Your task to perform on an android device: Go to location settings Image 0: 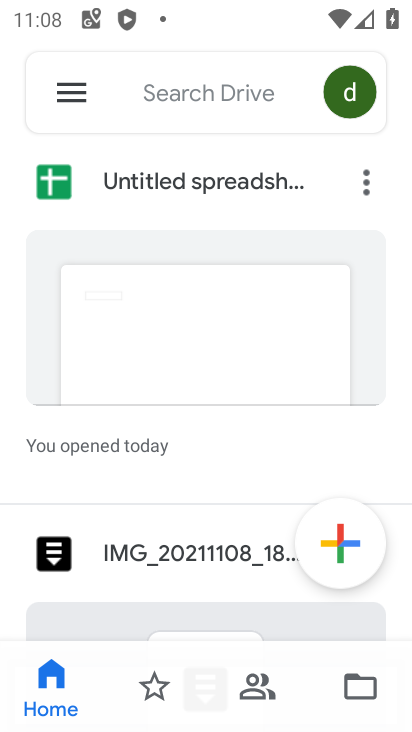
Step 0: press home button
Your task to perform on an android device: Go to location settings Image 1: 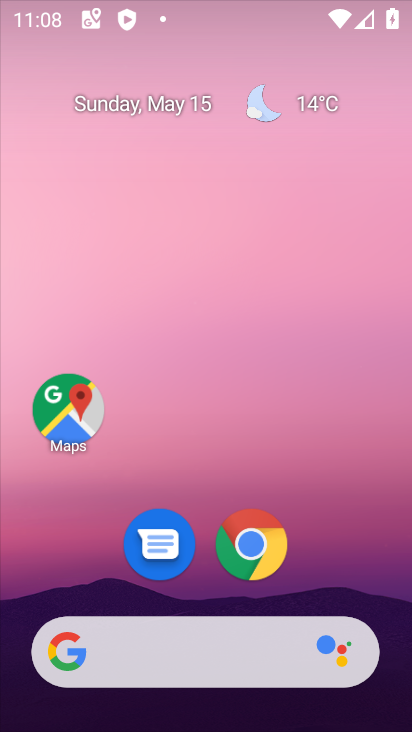
Step 1: drag from (123, 632) to (276, 170)
Your task to perform on an android device: Go to location settings Image 2: 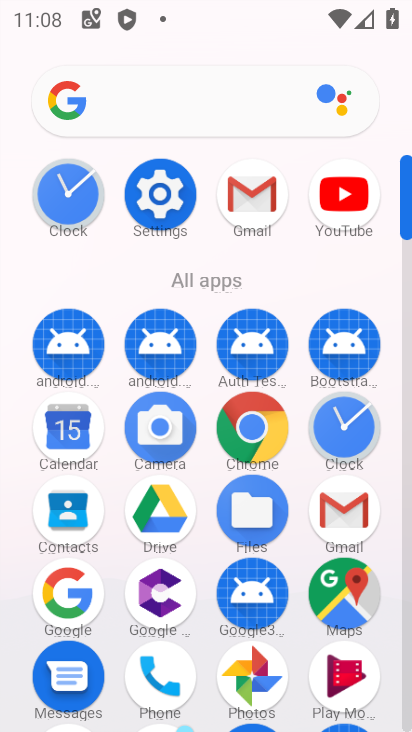
Step 2: drag from (179, 633) to (240, 408)
Your task to perform on an android device: Go to location settings Image 3: 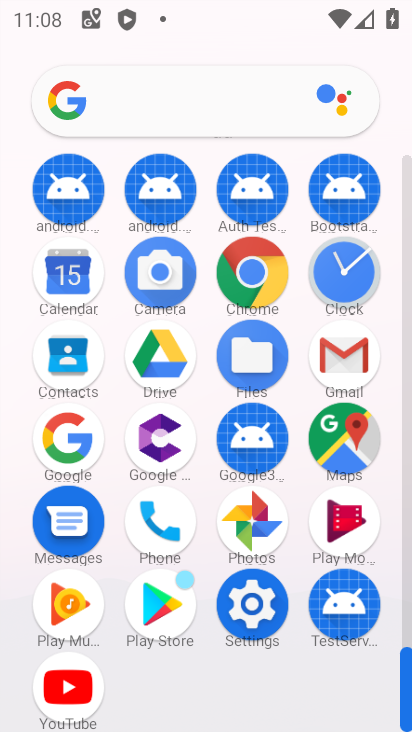
Step 3: click (249, 595)
Your task to perform on an android device: Go to location settings Image 4: 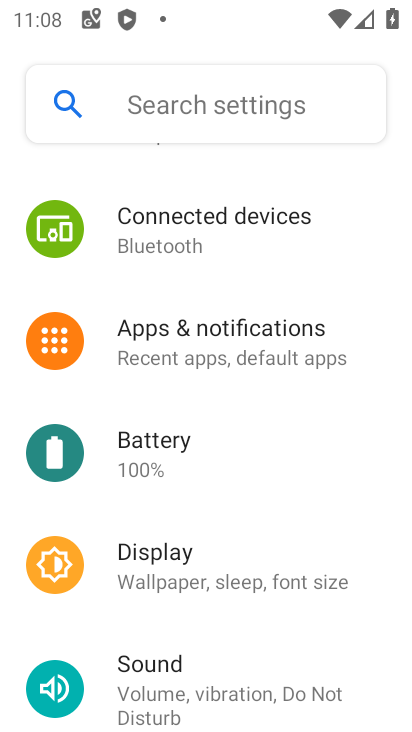
Step 4: drag from (223, 585) to (366, 227)
Your task to perform on an android device: Go to location settings Image 5: 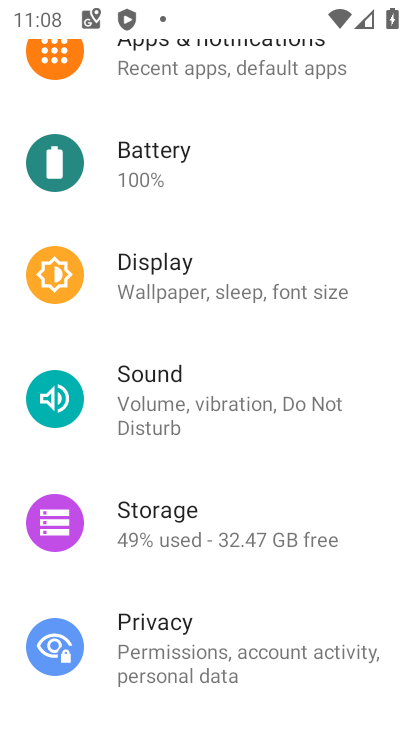
Step 5: drag from (233, 620) to (305, 280)
Your task to perform on an android device: Go to location settings Image 6: 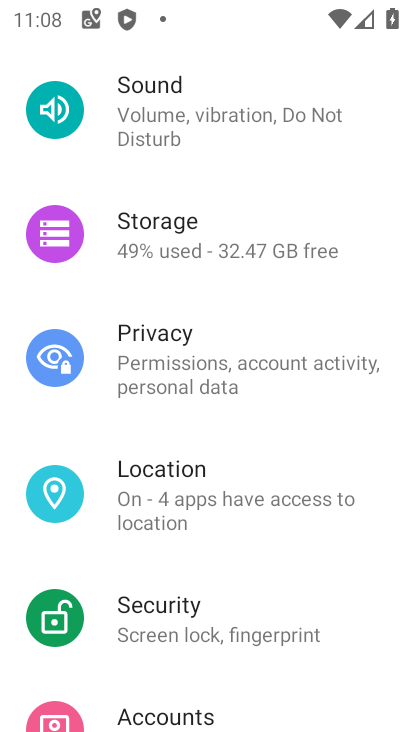
Step 6: click (182, 508)
Your task to perform on an android device: Go to location settings Image 7: 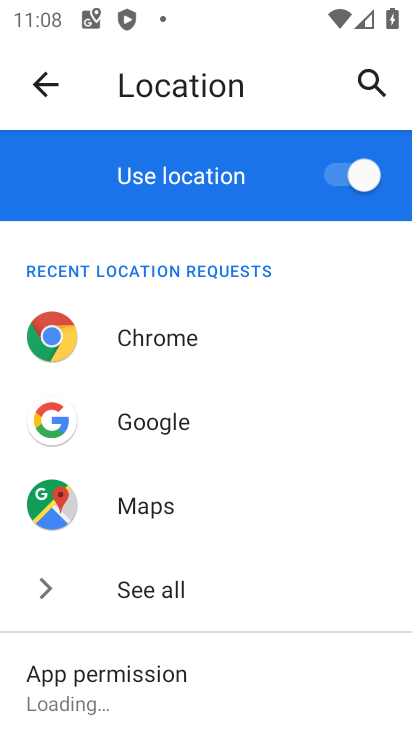
Step 7: task complete